Your task to perform on an android device: turn off javascript in the chrome app Image 0: 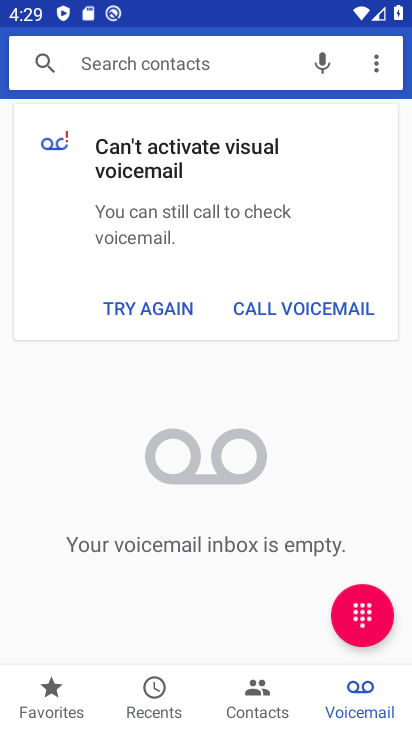
Step 0: press home button
Your task to perform on an android device: turn off javascript in the chrome app Image 1: 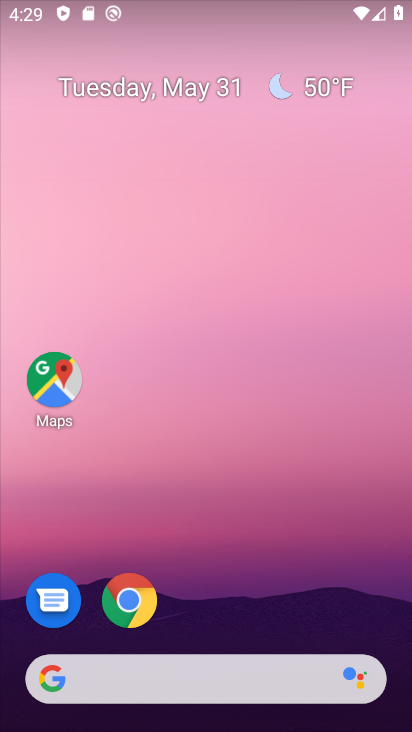
Step 1: click (130, 595)
Your task to perform on an android device: turn off javascript in the chrome app Image 2: 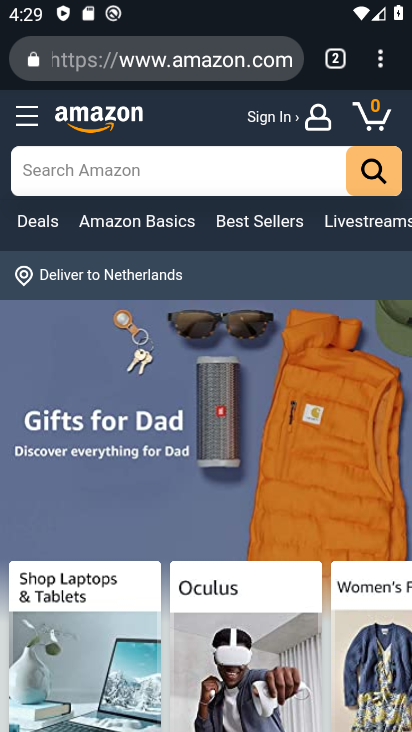
Step 2: click (383, 61)
Your task to perform on an android device: turn off javascript in the chrome app Image 3: 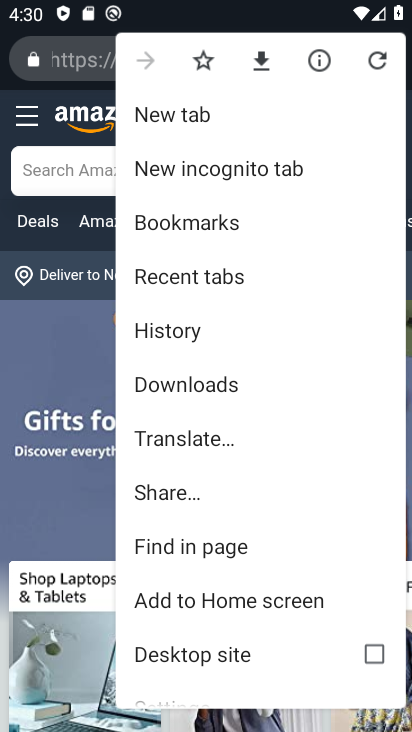
Step 3: drag from (213, 480) to (265, 405)
Your task to perform on an android device: turn off javascript in the chrome app Image 4: 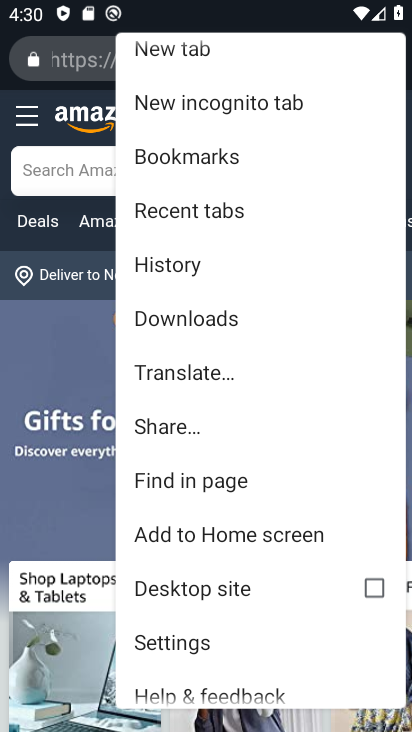
Step 4: drag from (212, 558) to (282, 461)
Your task to perform on an android device: turn off javascript in the chrome app Image 5: 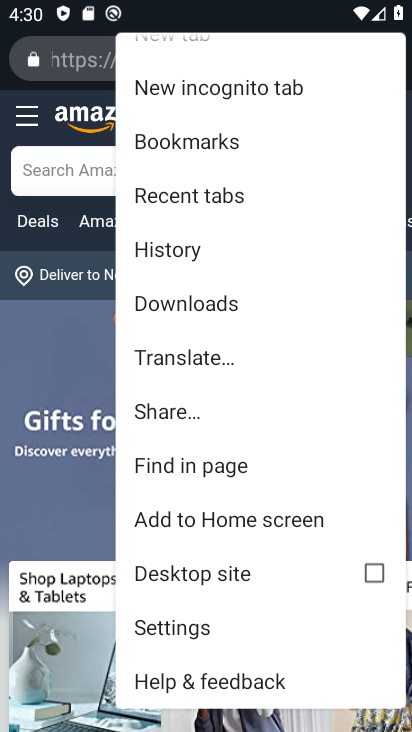
Step 5: click (188, 619)
Your task to perform on an android device: turn off javascript in the chrome app Image 6: 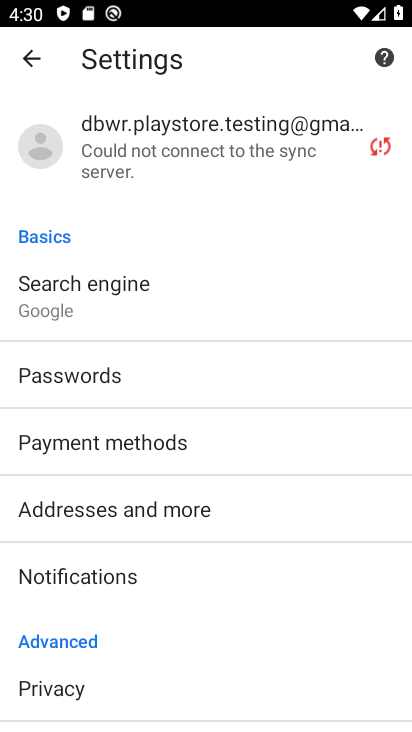
Step 6: drag from (172, 525) to (224, 437)
Your task to perform on an android device: turn off javascript in the chrome app Image 7: 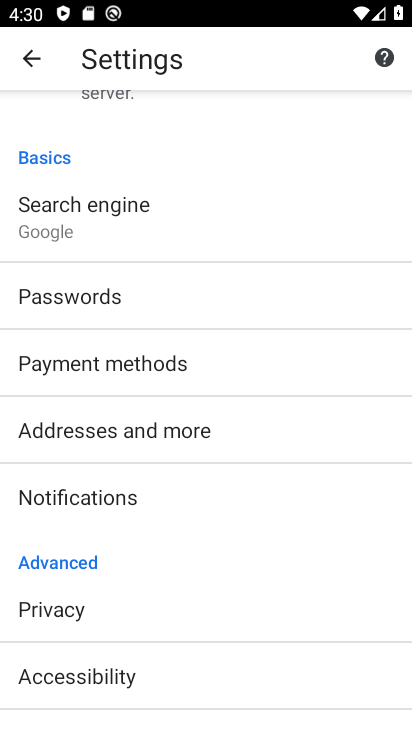
Step 7: drag from (164, 568) to (248, 460)
Your task to perform on an android device: turn off javascript in the chrome app Image 8: 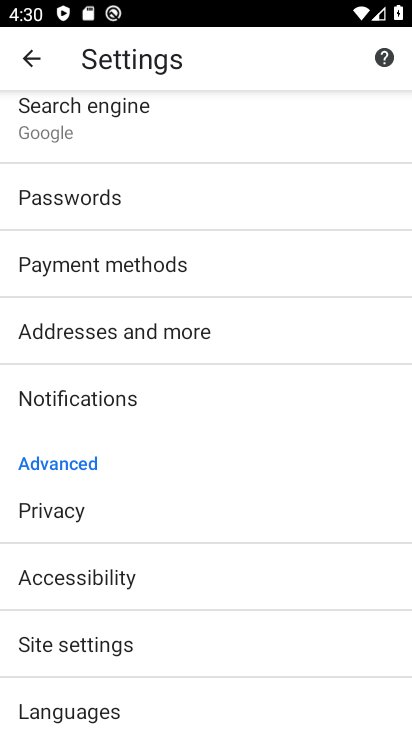
Step 8: drag from (176, 622) to (274, 492)
Your task to perform on an android device: turn off javascript in the chrome app Image 9: 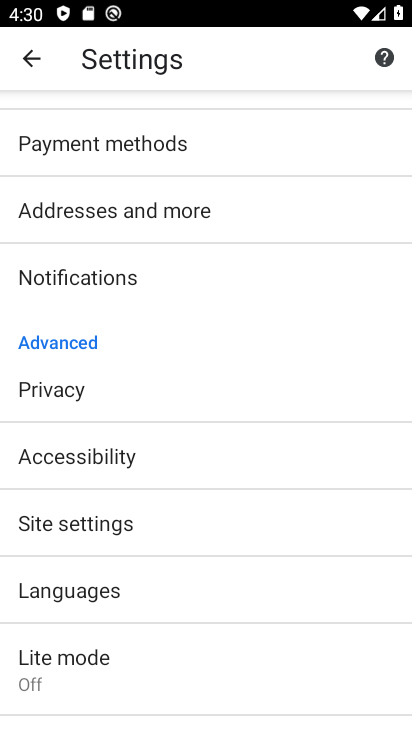
Step 9: drag from (158, 625) to (223, 524)
Your task to perform on an android device: turn off javascript in the chrome app Image 10: 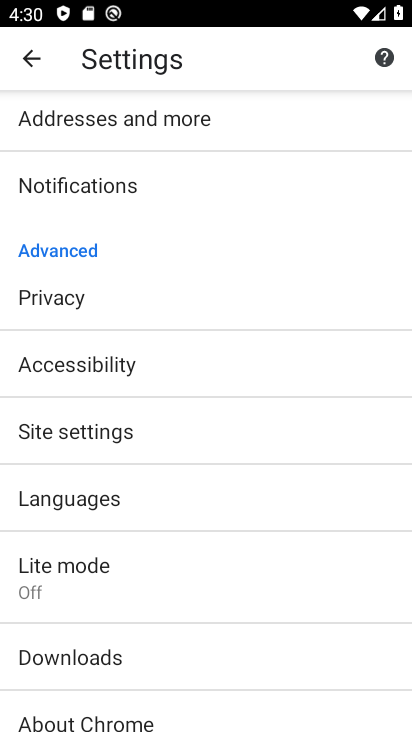
Step 10: click (130, 429)
Your task to perform on an android device: turn off javascript in the chrome app Image 11: 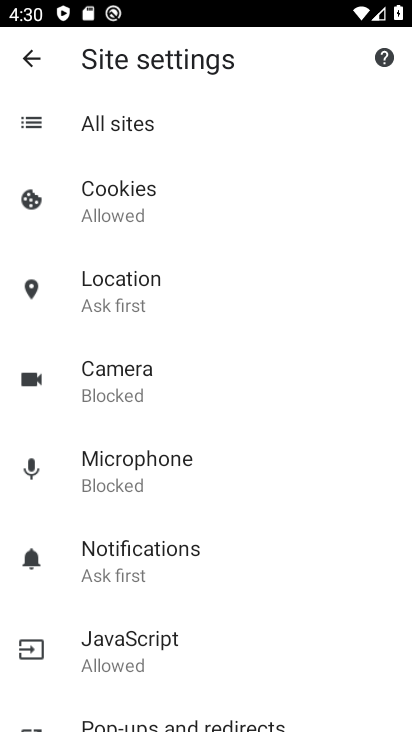
Step 11: drag from (149, 598) to (210, 503)
Your task to perform on an android device: turn off javascript in the chrome app Image 12: 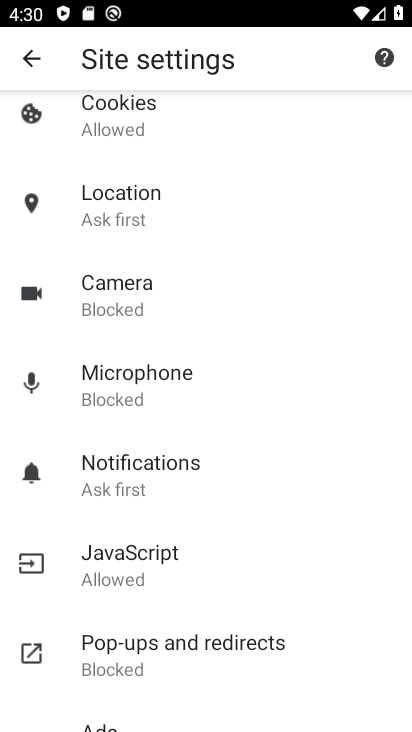
Step 12: click (179, 546)
Your task to perform on an android device: turn off javascript in the chrome app Image 13: 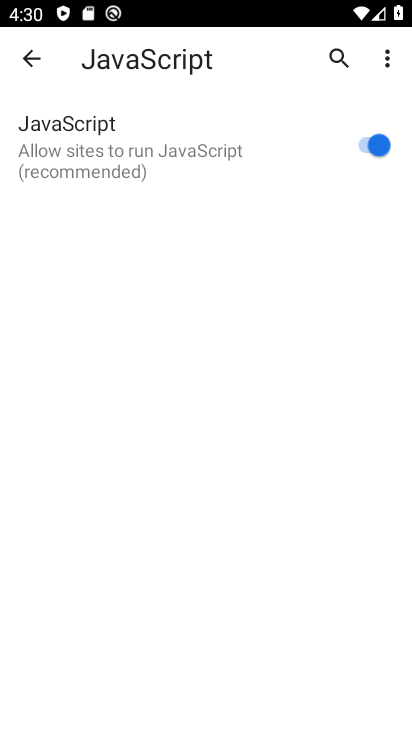
Step 13: click (368, 148)
Your task to perform on an android device: turn off javascript in the chrome app Image 14: 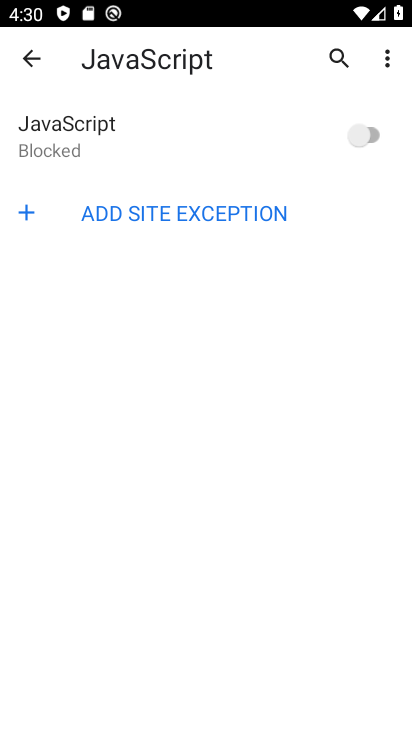
Step 14: task complete